Your task to perform on an android device: Open settings Image 0: 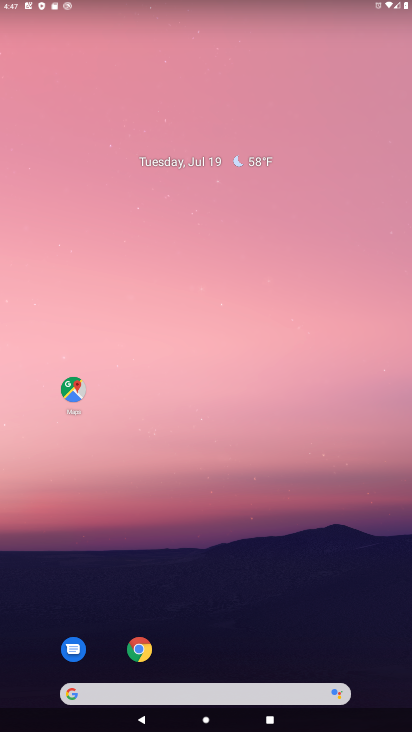
Step 0: click (198, 95)
Your task to perform on an android device: Open settings Image 1: 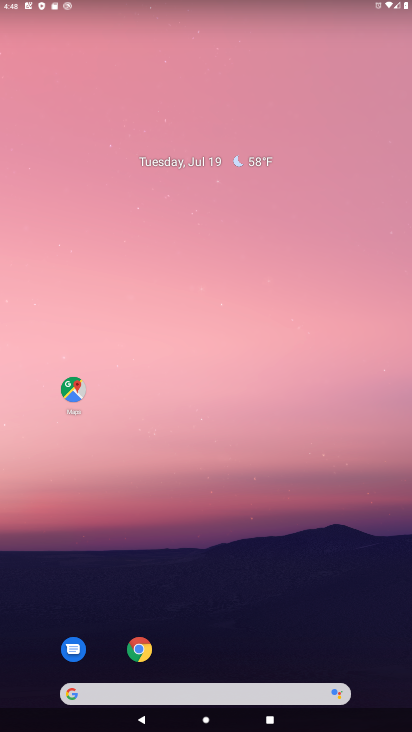
Step 1: drag from (212, 321) to (222, 70)
Your task to perform on an android device: Open settings Image 2: 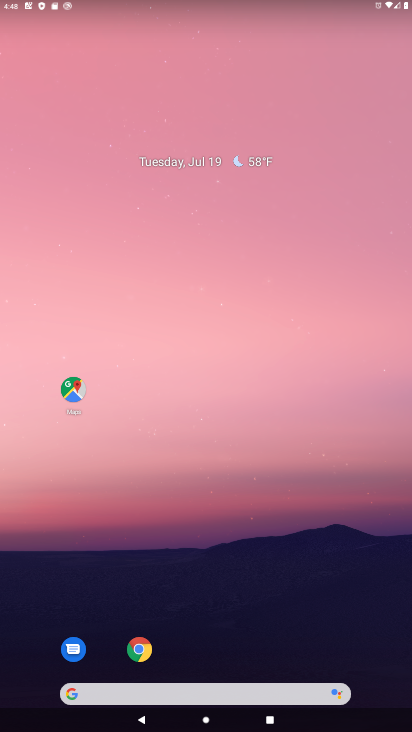
Step 2: drag from (198, 634) to (192, 148)
Your task to perform on an android device: Open settings Image 3: 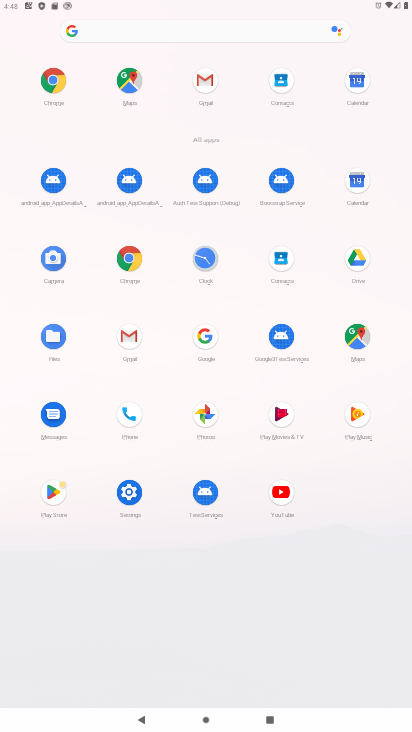
Step 3: click (129, 487)
Your task to perform on an android device: Open settings Image 4: 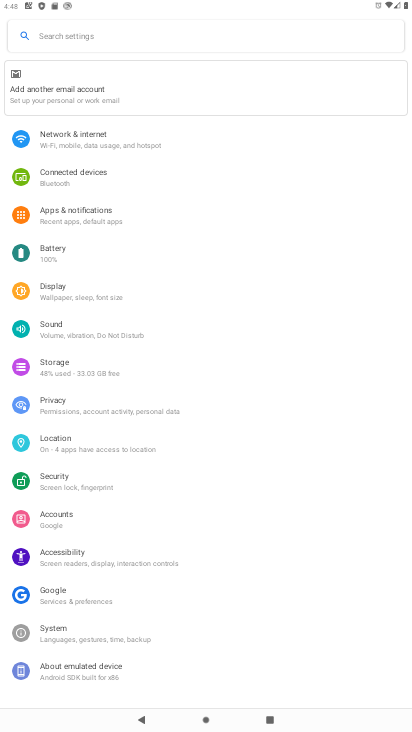
Step 4: task complete